Your task to perform on an android device: What is the recent news? Image 0: 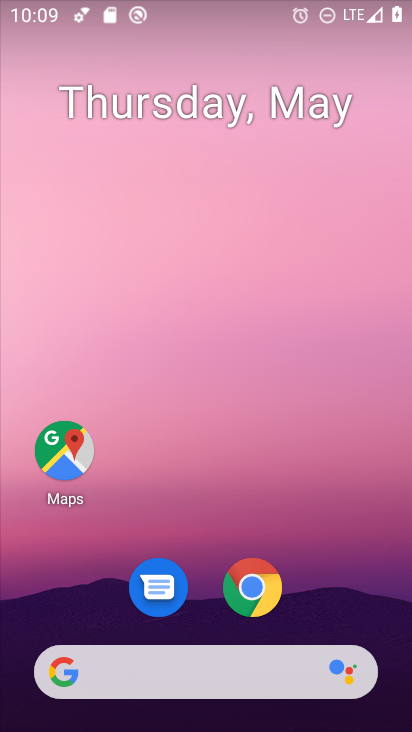
Step 0: click (121, 675)
Your task to perform on an android device: What is the recent news? Image 1: 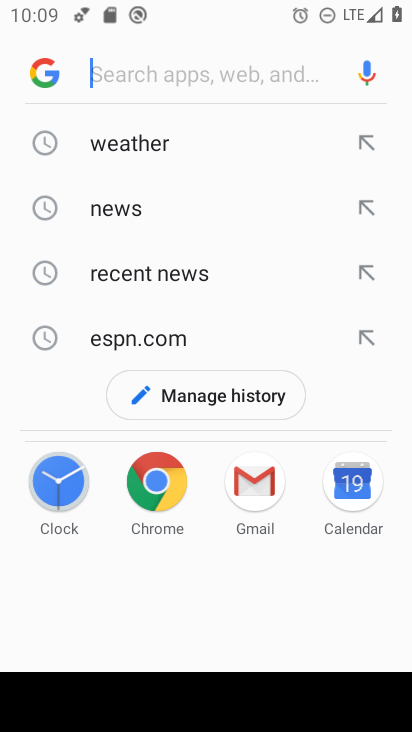
Step 1: click (133, 278)
Your task to perform on an android device: What is the recent news? Image 2: 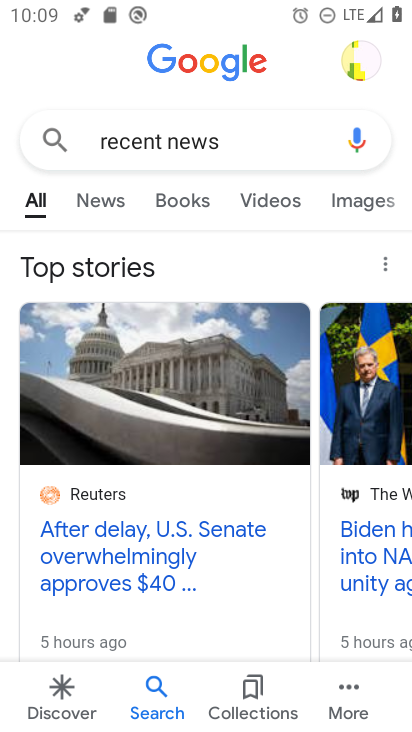
Step 2: click (107, 196)
Your task to perform on an android device: What is the recent news? Image 3: 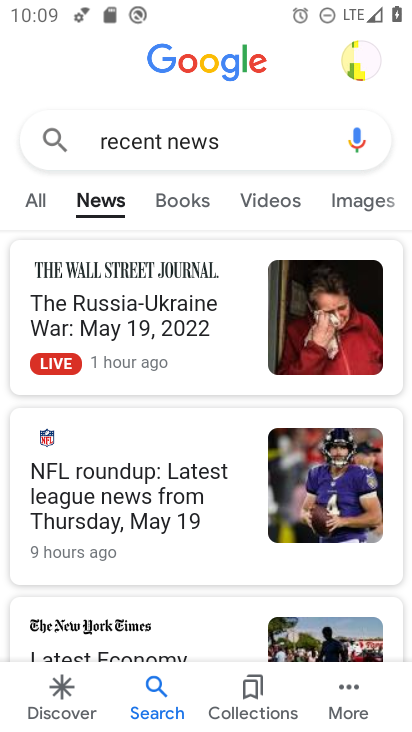
Step 3: drag from (154, 557) to (173, 298)
Your task to perform on an android device: What is the recent news? Image 4: 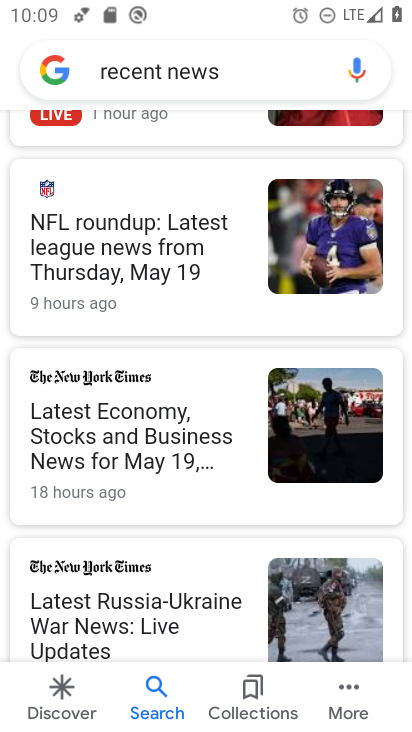
Step 4: drag from (151, 477) to (160, 347)
Your task to perform on an android device: What is the recent news? Image 5: 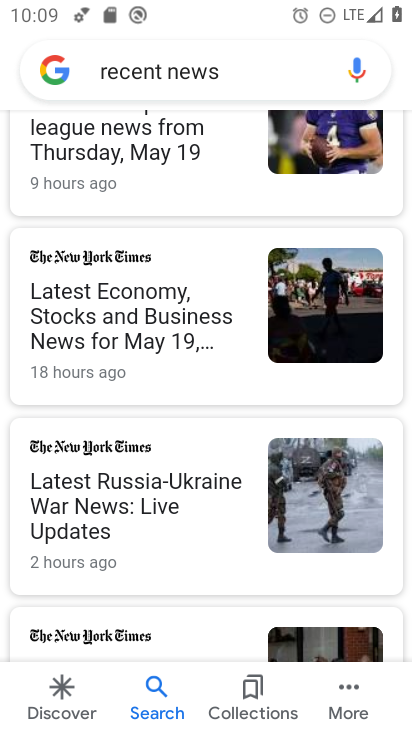
Step 5: drag from (160, 336) to (122, 665)
Your task to perform on an android device: What is the recent news? Image 6: 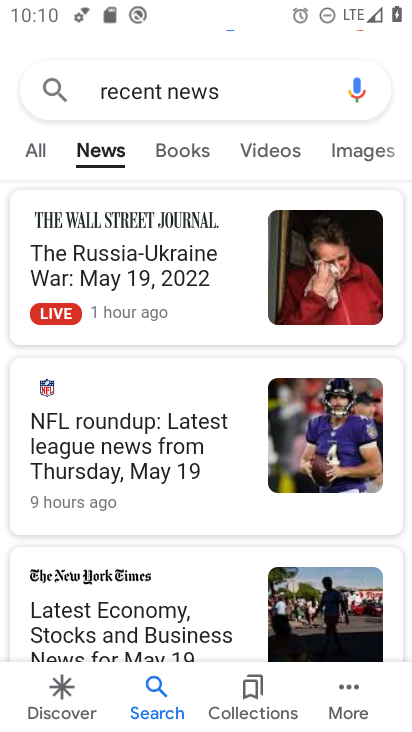
Step 6: drag from (172, 296) to (155, 524)
Your task to perform on an android device: What is the recent news? Image 7: 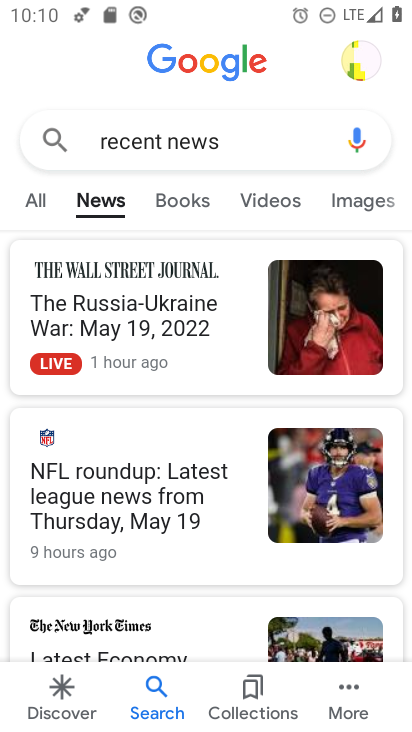
Step 7: click (185, 321)
Your task to perform on an android device: What is the recent news? Image 8: 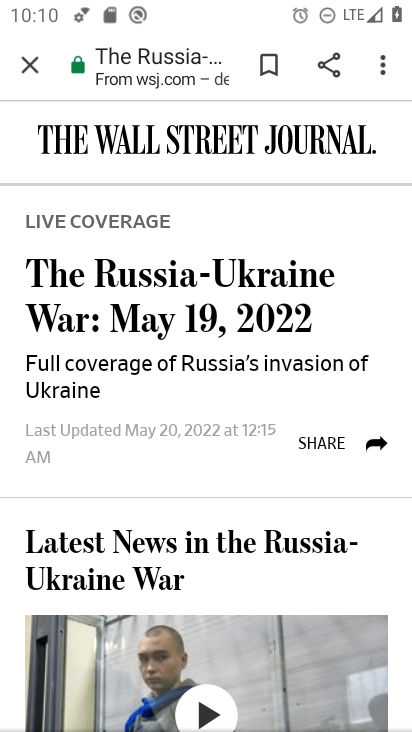
Step 8: task complete